Your task to perform on an android device: Search for vegetarian restaurants on Maps Image 0: 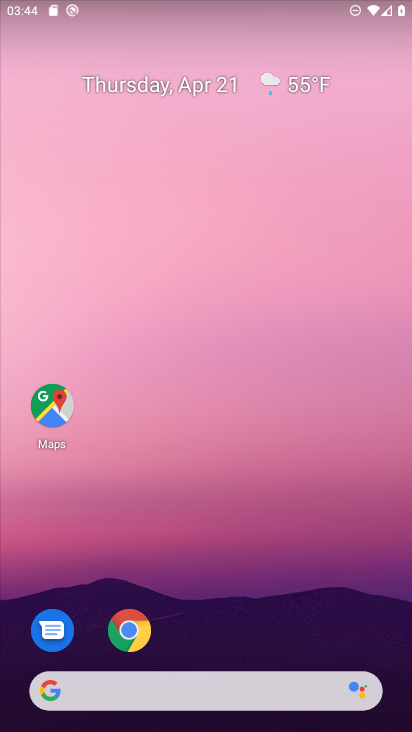
Step 0: click (61, 418)
Your task to perform on an android device: Search for vegetarian restaurants on Maps Image 1: 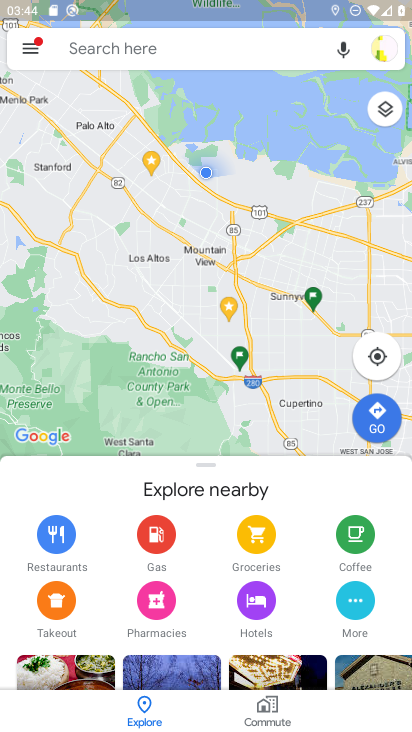
Step 1: click (138, 45)
Your task to perform on an android device: Search for vegetarian restaurants on Maps Image 2: 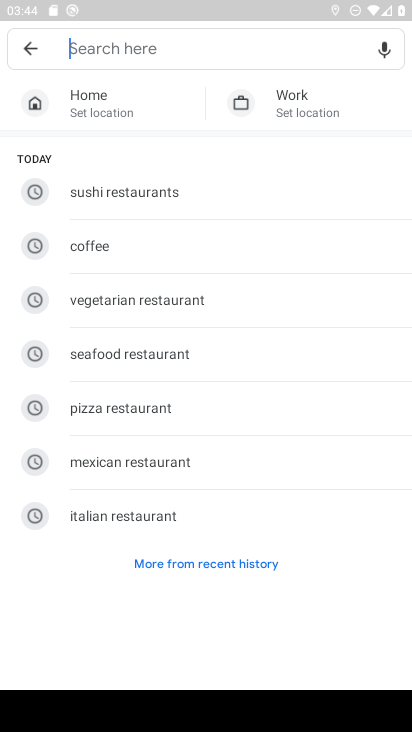
Step 2: click (159, 315)
Your task to perform on an android device: Search for vegetarian restaurants on Maps Image 3: 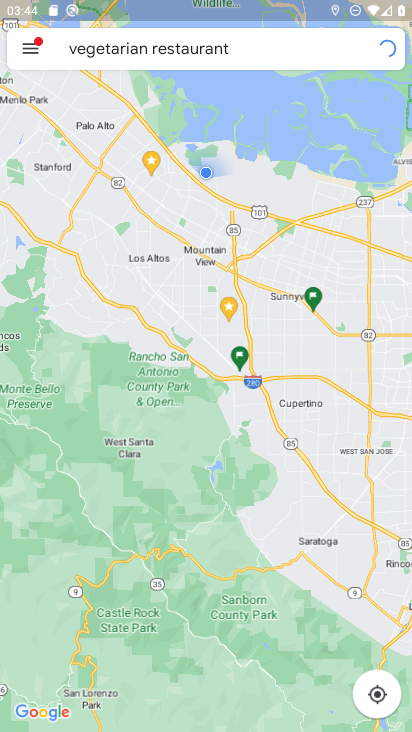
Step 3: task complete